Your task to perform on an android device: Open Chrome and go to the settings page Image 0: 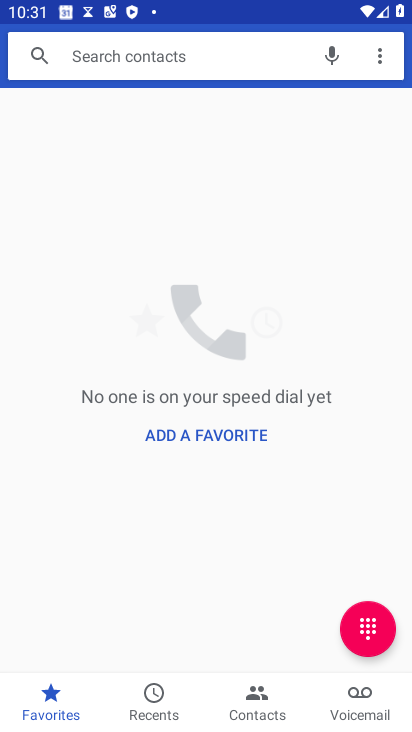
Step 0: press home button
Your task to perform on an android device: Open Chrome and go to the settings page Image 1: 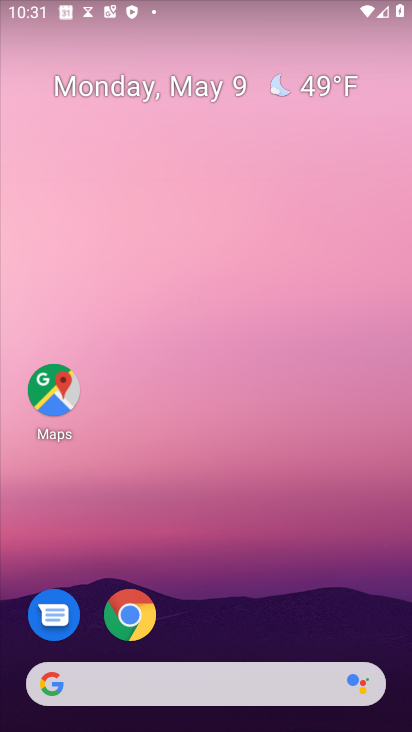
Step 1: click (148, 621)
Your task to perform on an android device: Open Chrome and go to the settings page Image 2: 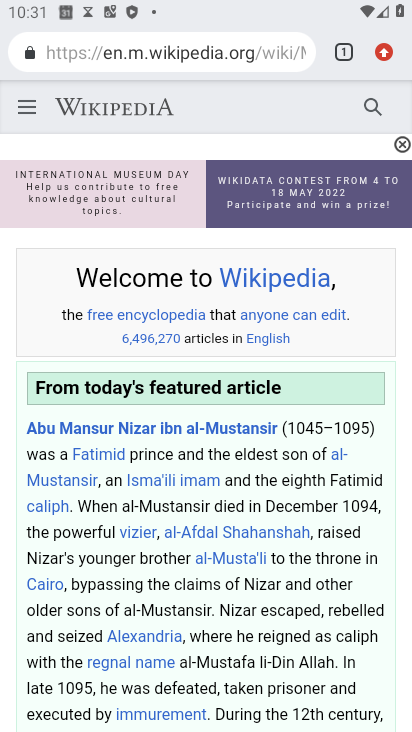
Step 2: task complete